Your task to perform on an android device: Go to Reddit.com Image 0: 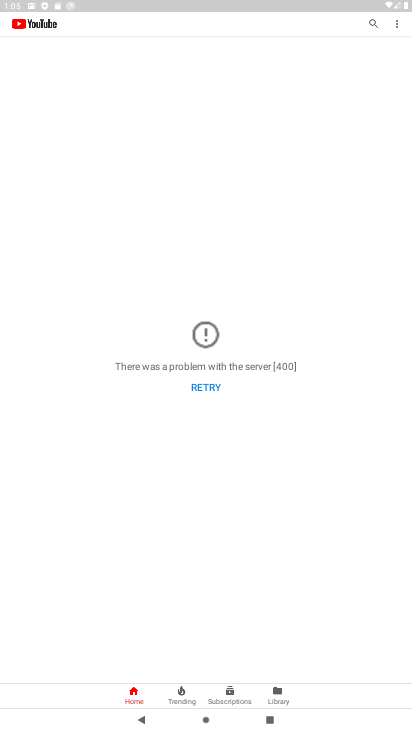
Step 0: press home button
Your task to perform on an android device: Go to Reddit.com Image 1: 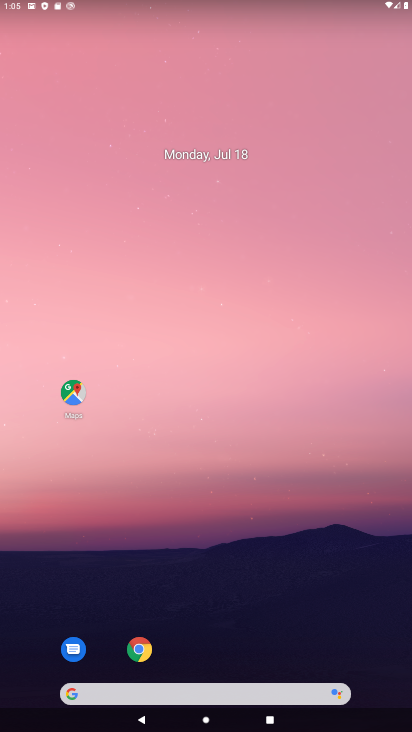
Step 1: click (176, 696)
Your task to perform on an android device: Go to Reddit.com Image 2: 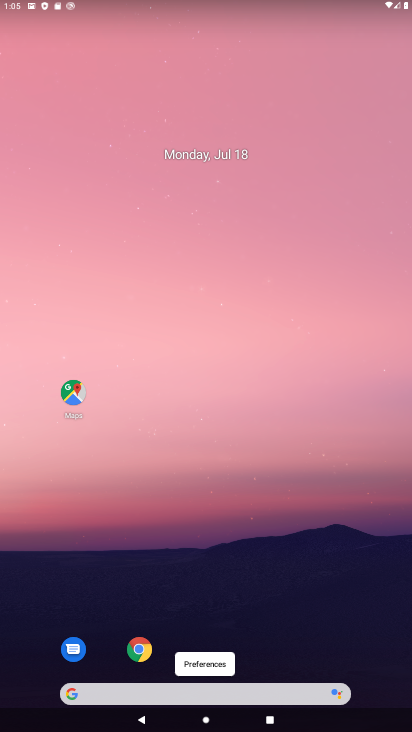
Step 2: drag from (176, 654) to (167, 38)
Your task to perform on an android device: Go to Reddit.com Image 3: 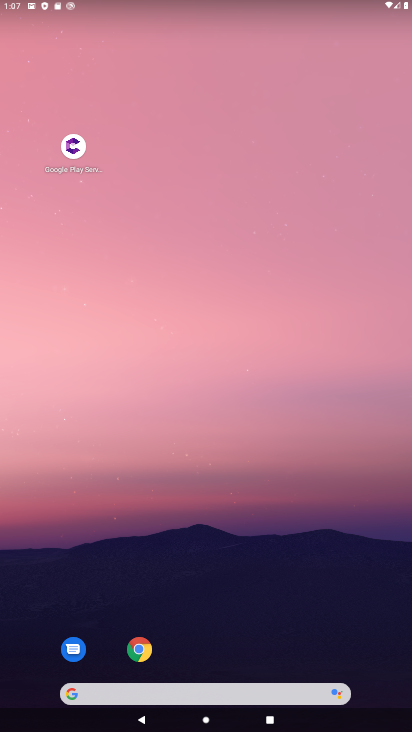
Step 3: drag from (161, 693) to (195, 26)
Your task to perform on an android device: Go to Reddit.com Image 4: 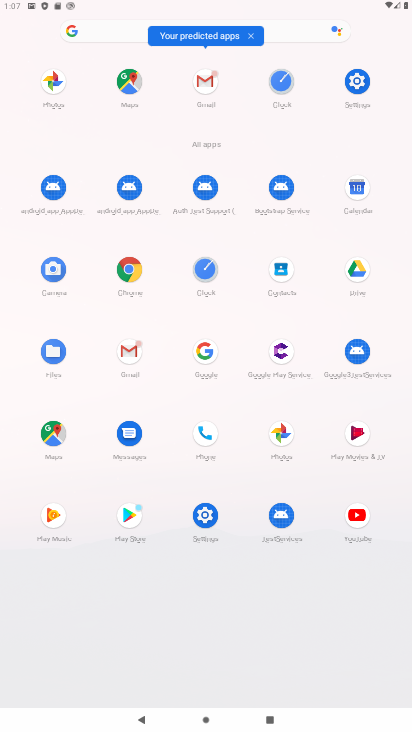
Step 4: click (111, 33)
Your task to perform on an android device: Go to Reddit.com Image 5: 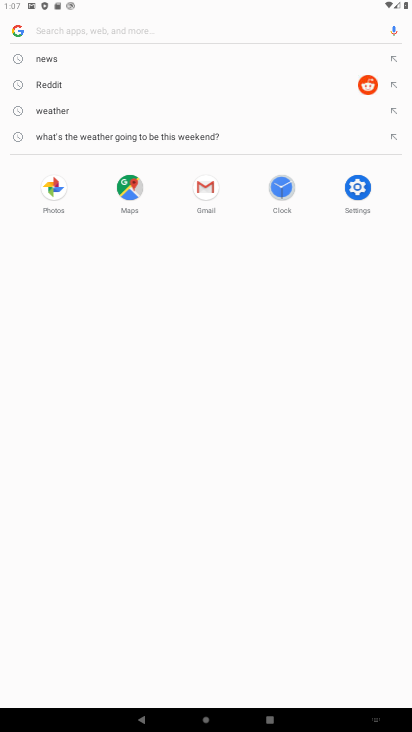
Step 5: type "reddit.com"
Your task to perform on an android device: Go to Reddit.com Image 6: 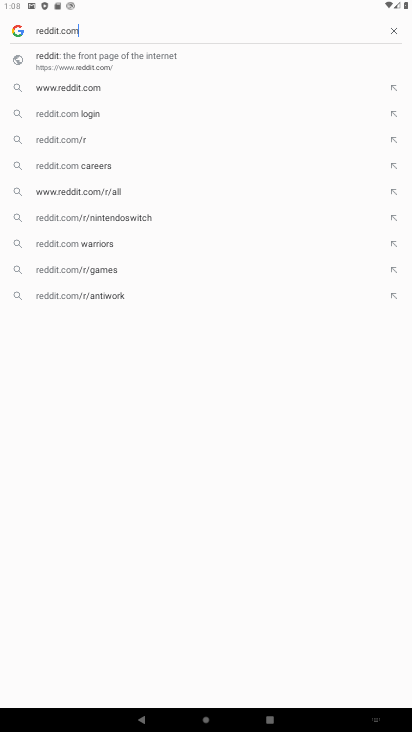
Step 6: click (193, 60)
Your task to perform on an android device: Go to Reddit.com Image 7: 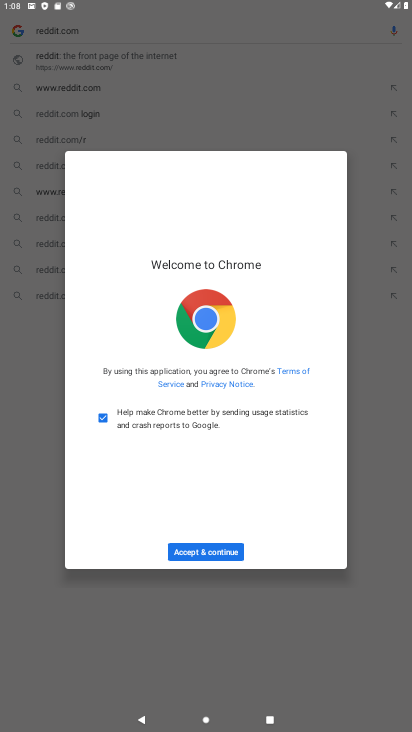
Step 7: click (234, 553)
Your task to perform on an android device: Go to Reddit.com Image 8: 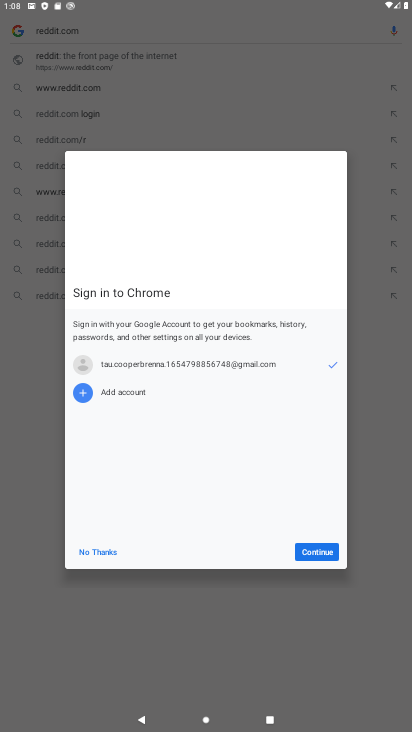
Step 8: click (306, 557)
Your task to perform on an android device: Go to Reddit.com Image 9: 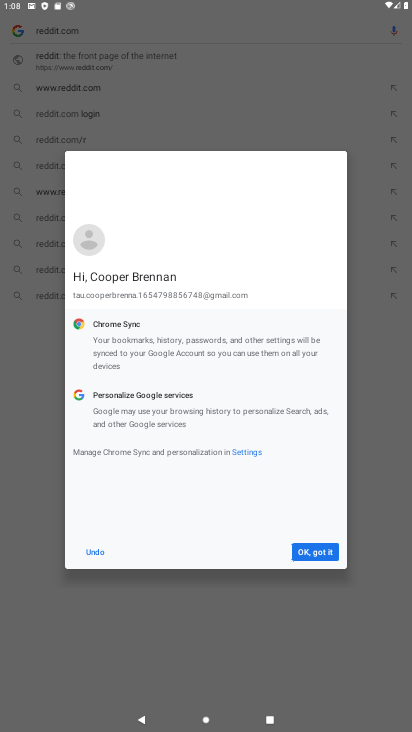
Step 9: click (306, 557)
Your task to perform on an android device: Go to Reddit.com Image 10: 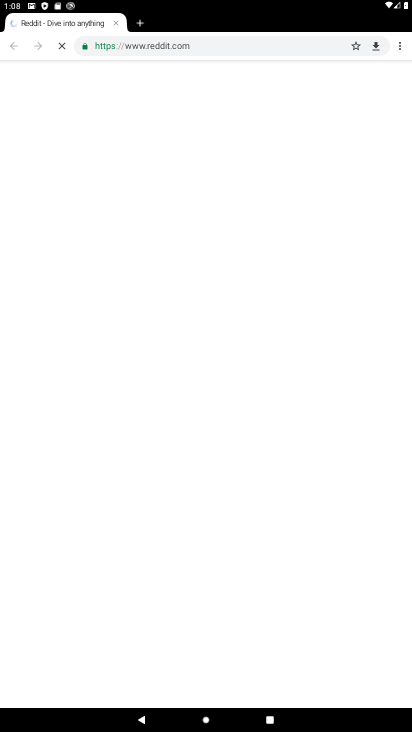
Step 10: task complete